Your task to perform on an android device: open a new tab in the chrome app Image 0: 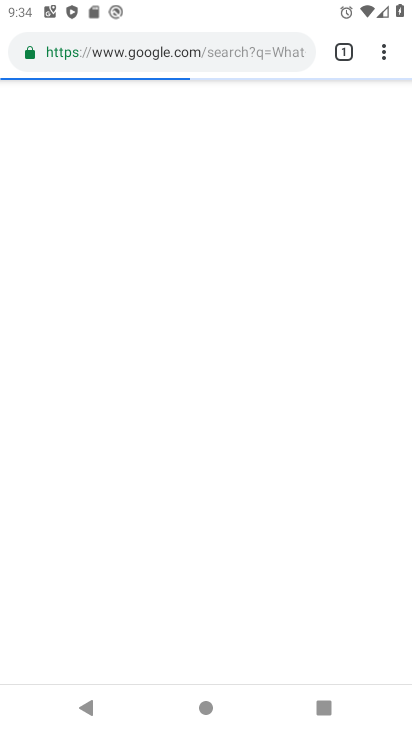
Step 0: drag from (202, 227) to (189, 170)
Your task to perform on an android device: open a new tab in the chrome app Image 1: 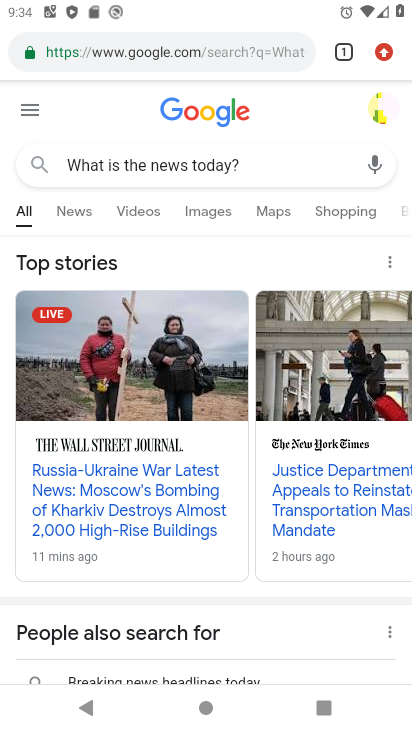
Step 1: press home button
Your task to perform on an android device: open a new tab in the chrome app Image 2: 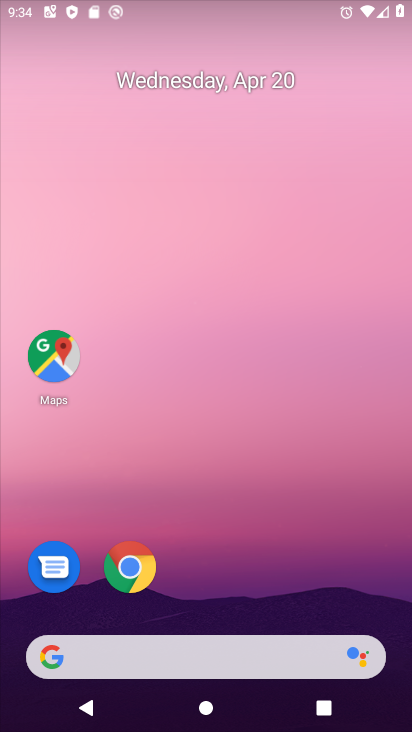
Step 2: drag from (242, 666) to (210, 249)
Your task to perform on an android device: open a new tab in the chrome app Image 3: 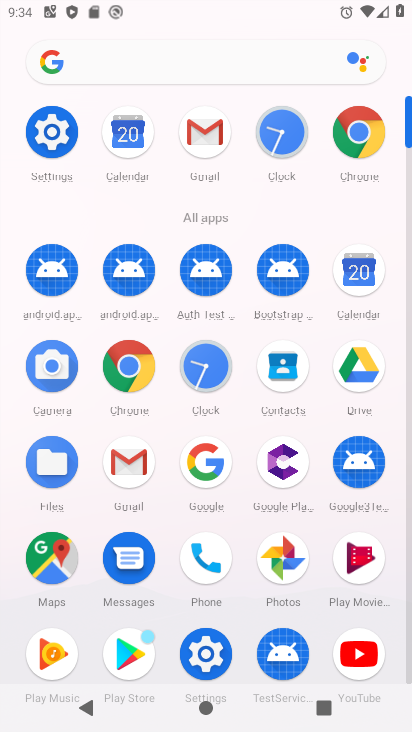
Step 3: click (123, 359)
Your task to perform on an android device: open a new tab in the chrome app Image 4: 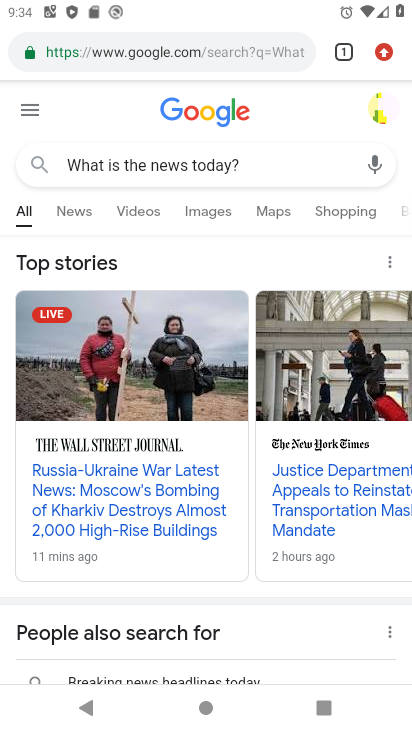
Step 4: click (386, 44)
Your task to perform on an android device: open a new tab in the chrome app Image 5: 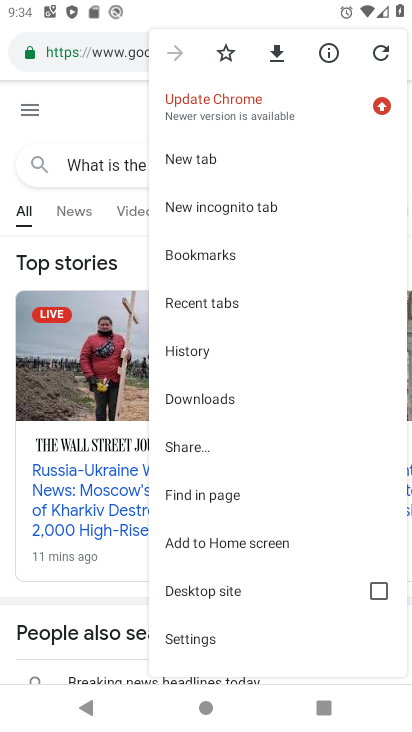
Step 5: click (214, 151)
Your task to perform on an android device: open a new tab in the chrome app Image 6: 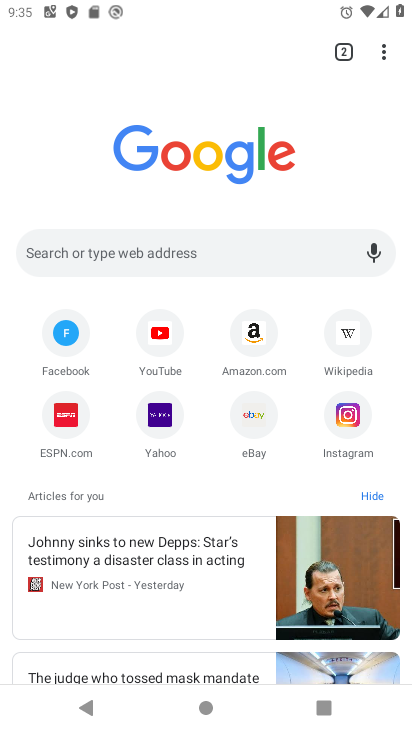
Step 6: task complete